Your task to perform on an android device: Open wifi settings Image 0: 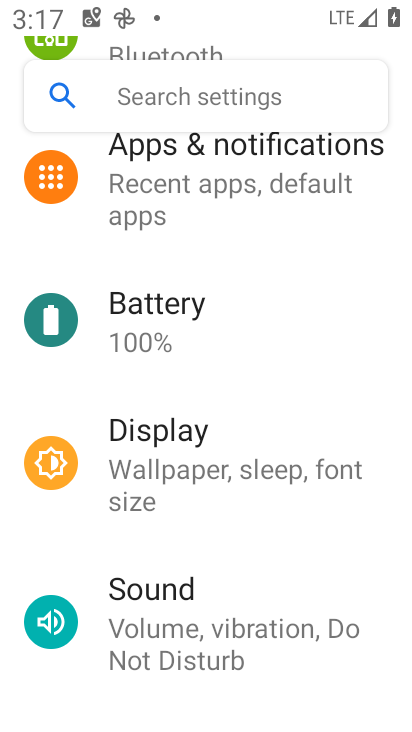
Step 0: press home button
Your task to perform on an android device: Open wifi settings Image 1: 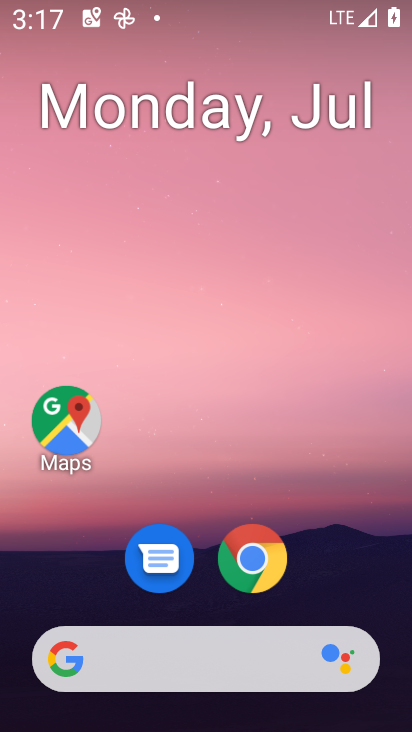
Step 1: drag from (328, 511) to (304, 55)
Your task to perform on an android device: Open wifi settings Image 2: 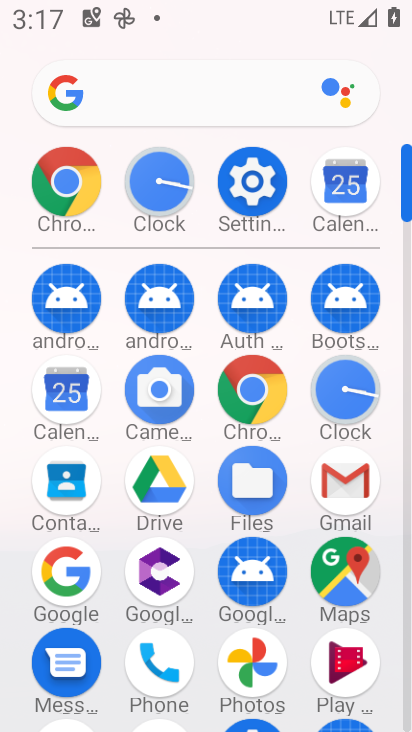
Step 2: click (241, 202)
Your task to perform on an android device: Open wifi settings Image 3: 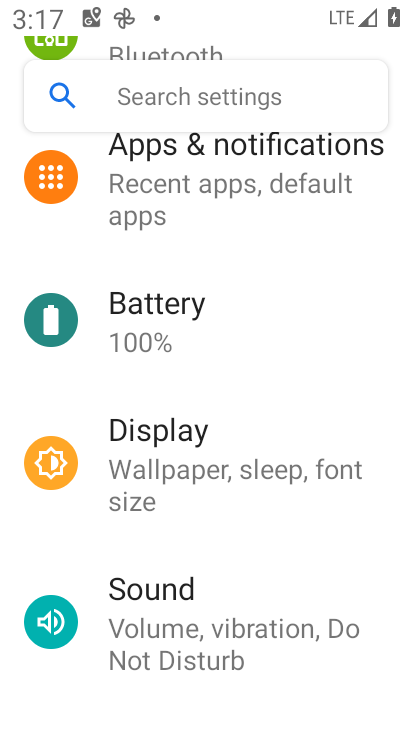
Step 3: drag from (311, 263) to (315, 411)
Your task to perform on an android device: Open wifi settings Image 4: 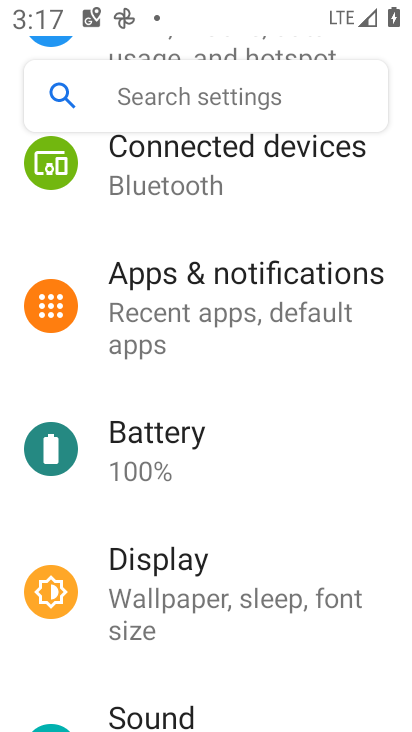
Step 4: drag from (336, 203) to (336, 378)
Your task to perform on an android device: Open wifi settings Image 5: 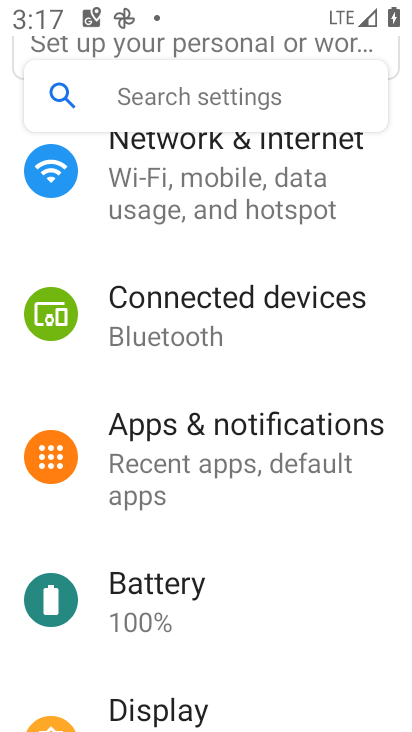
Step 5: drag from (369, 188) to (371, 396)
Your task to perform on an android device: Open wifi settings Image 6: 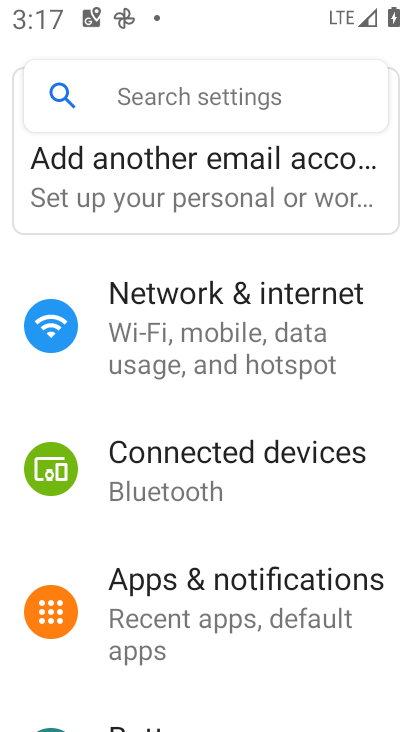
Step 6: drag from (372, 289) to (379, 466)
Your task to perform on an android device: Open wifi settings Image 7: 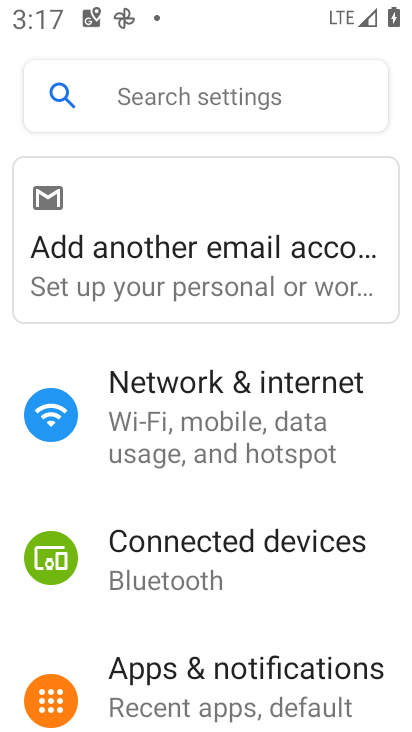
Step 7: click (250, 435)
Your task to perform on an android device: Open wifi settings Image 8: 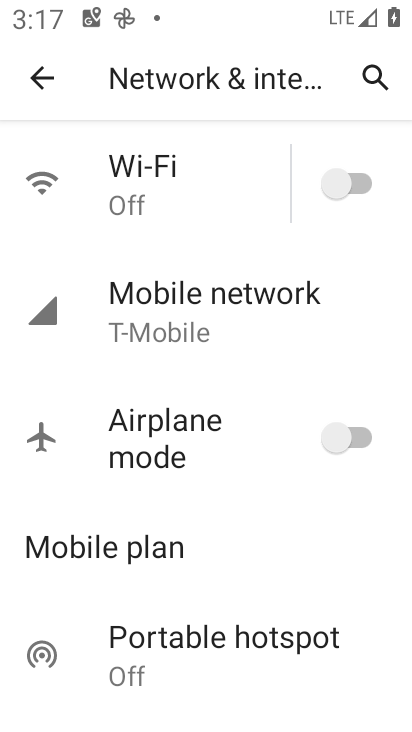
Step 8: drag from (259, 528) to (248, 392)
Your task to perform on an android device: Open wifi settings Image 9: 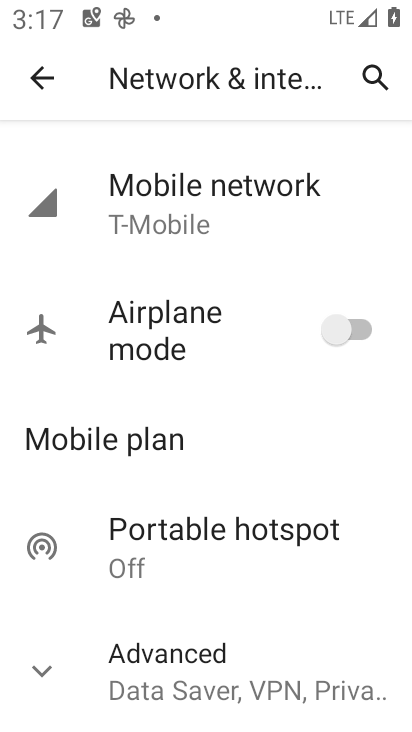
Step 9: drag from (261, 247) to (261, 454)
Your task to perform on an android device: Open wifi settings Image 10: 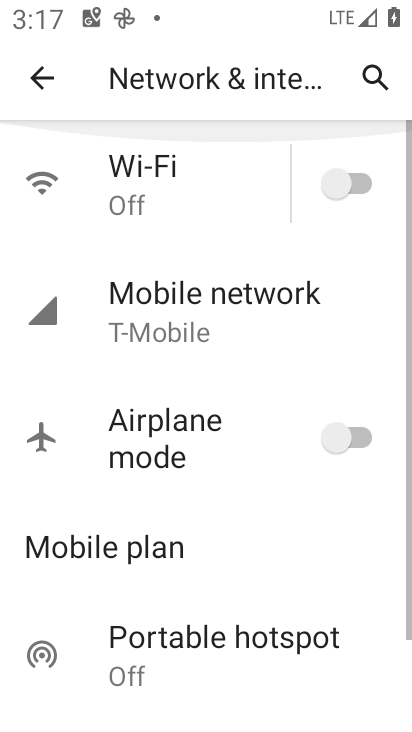
Step 10: click (171, 219)
Your task to perform on an android device: Open wifi settings Image 11: 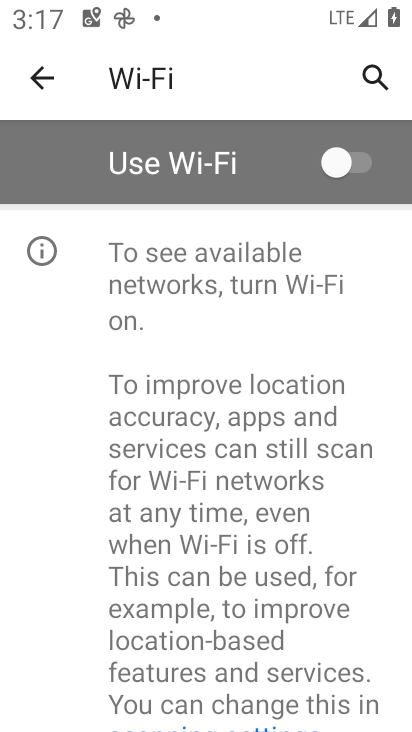
Step 11: task complete